Your task to perform on an android device: Go to notification settings Image 0: 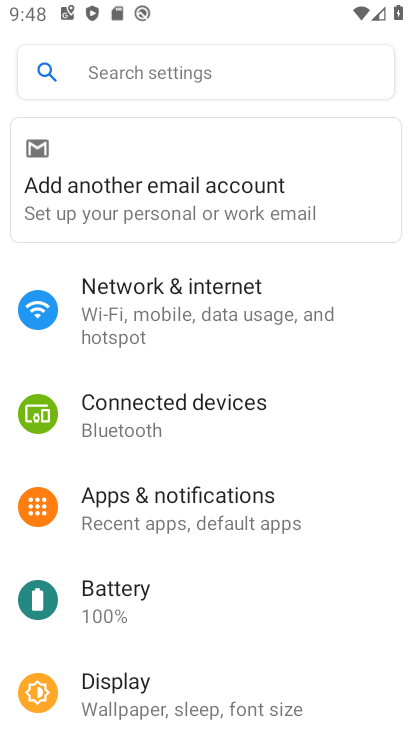
Step 0: click (172, 494)
Your task to perform on an android device: Go to notification settings Image 1: 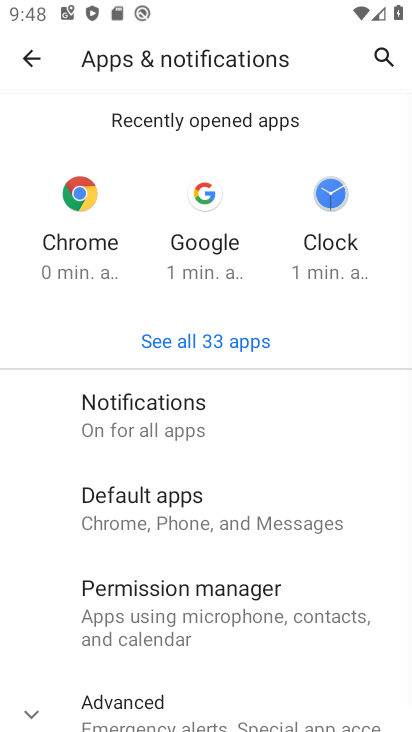
Step 1: click (46, 704)
Your task to perform on an android device: Go to notification settings Image 2: 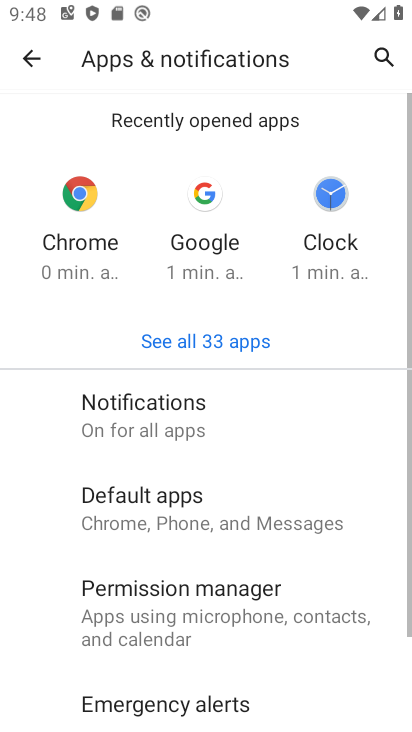
Step 2: click (250, 418)
Your task to perform on an android device: Go to notification settings Image 3: 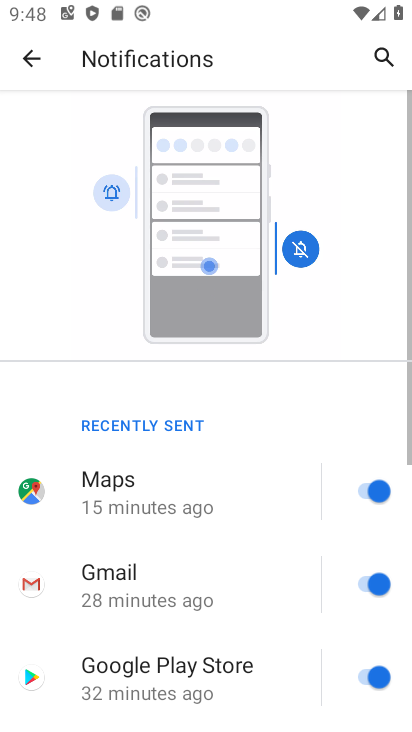
Step 3: drag from (186, 586) to (233, 43)
Your task to perform on an android device: Go to notification settings Image 4: 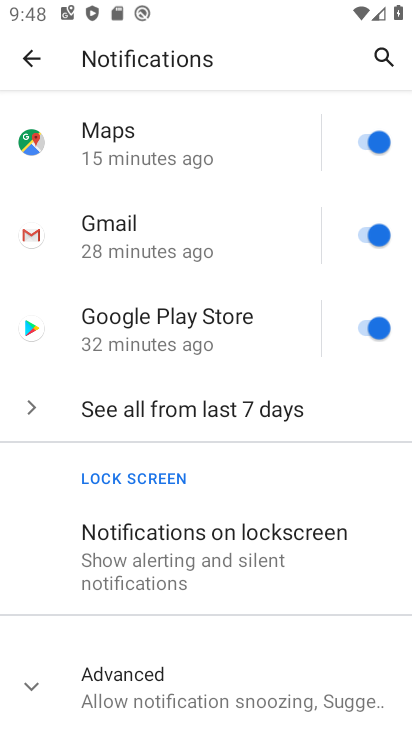
Step 4: click (69, 683)
Your task to perform on an android device: Go to notification settings Image 5: 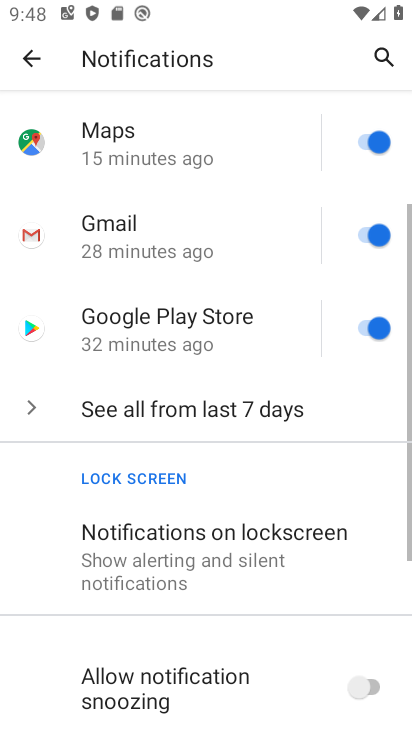
Step 5: task complete